Your task to perform on an android device: What's the weather today? Image 0: 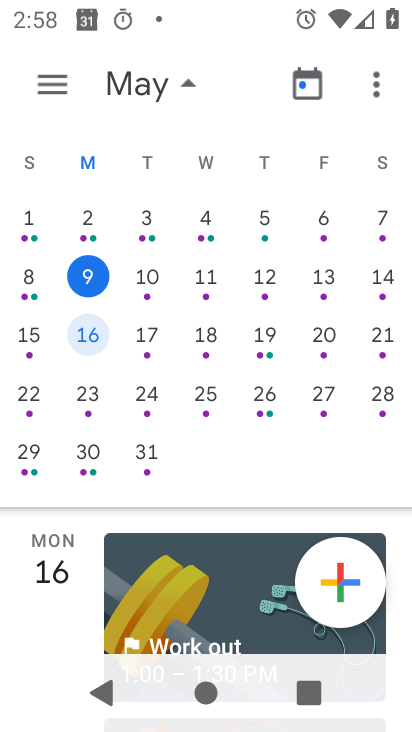
Step 0: press home button
Your task to perform on an android device: What's the weather today? Image 1: 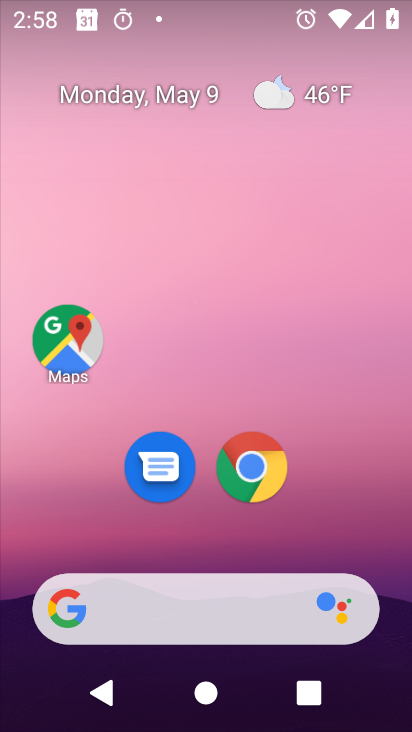
Step 1: click (327, 91)
Your task to perform on an android device: What's the weather today? Image 2: 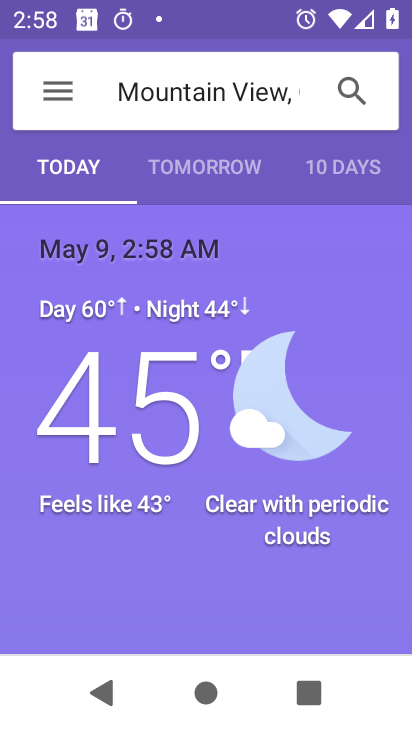
Step 2: task complete